Your task to perform on an android device: clear history in the chrome app Image 0: 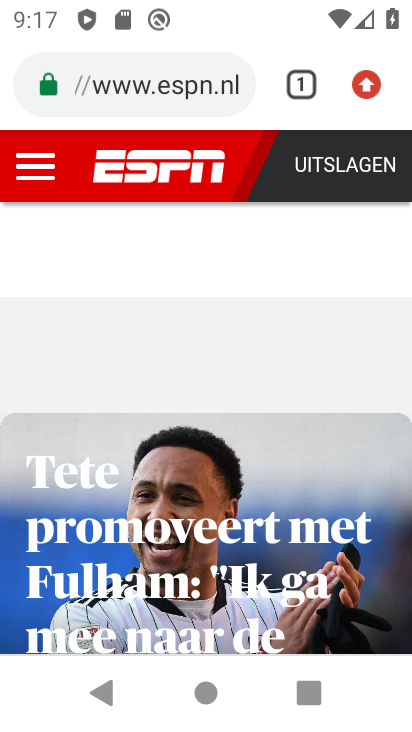
Step 0: drag from (399, 80) to (119, 221)
Your task to perform on an android device: clear history in the chrome app Image 1: 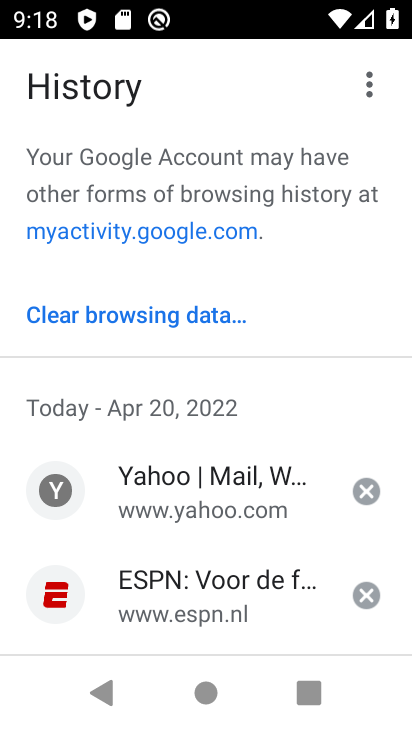
Step 1: click (161, 311)
Your task to perform on an android device: clear history in the chrome app Image 2: 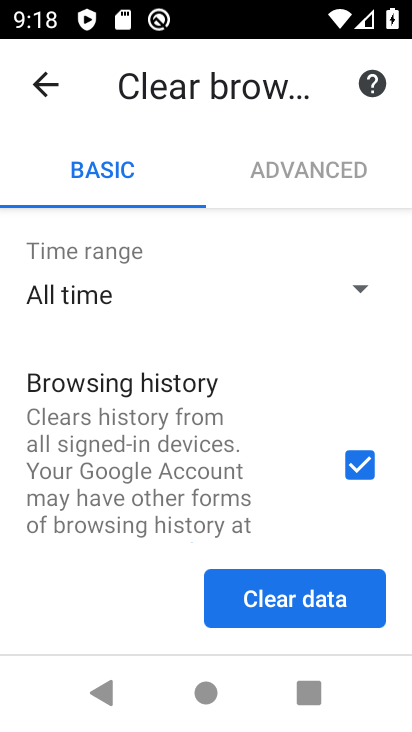
Step 2: click (316, 599)
Your task to perform on an android device: clear history in the chrome app Image 3: 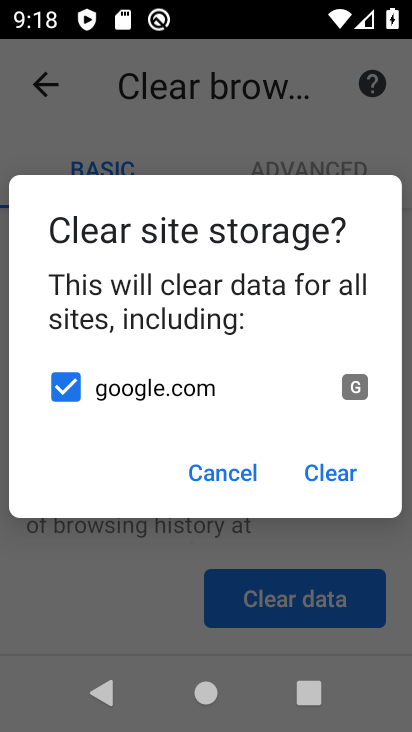
Step 3: click (321, 476)
Your task to perform on an android device: clear history in the chrome app Image 4: 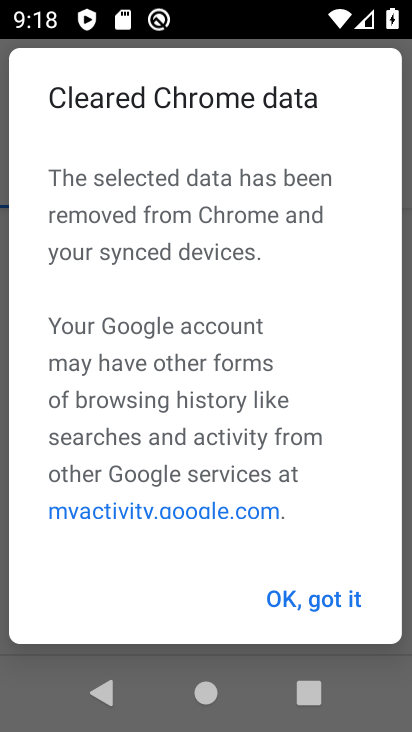
Step 4: task complete